Your task to perform on an android device: Go to sound settings Image 0: 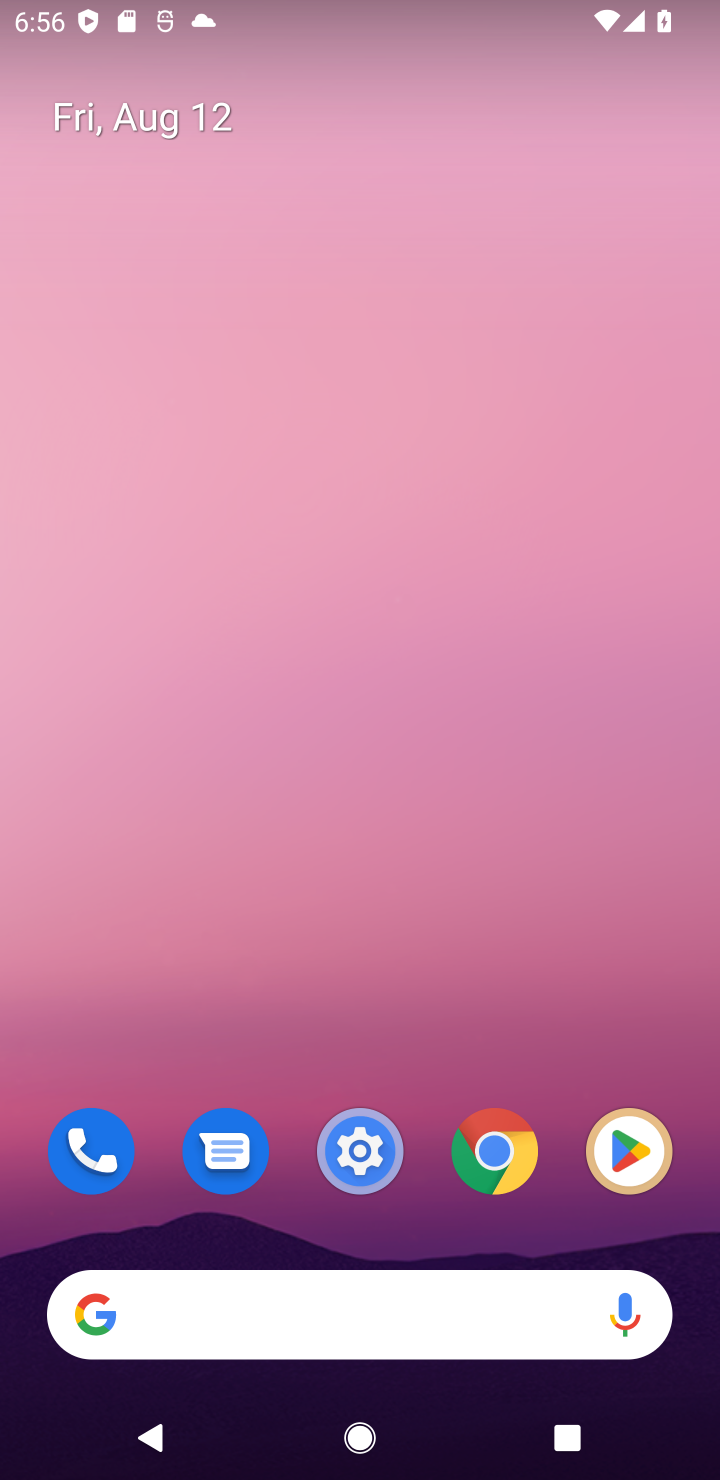
Step 0: drag from (399, 826) to (347, 6)
Your task to perform on an android device: Go to sound settings Image 1: 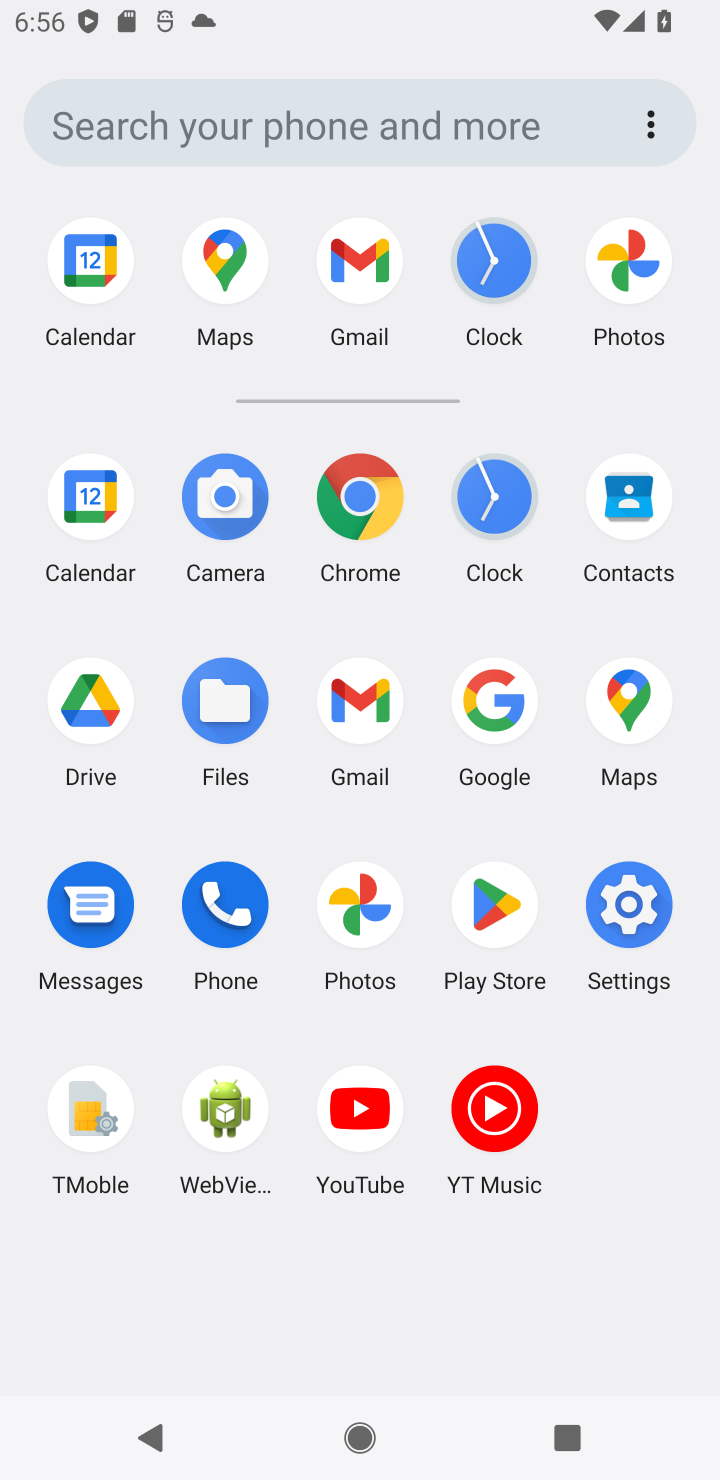
Step 1: click (626, 913)
Your task to perform on an android device: Go to sound settings Image 2: 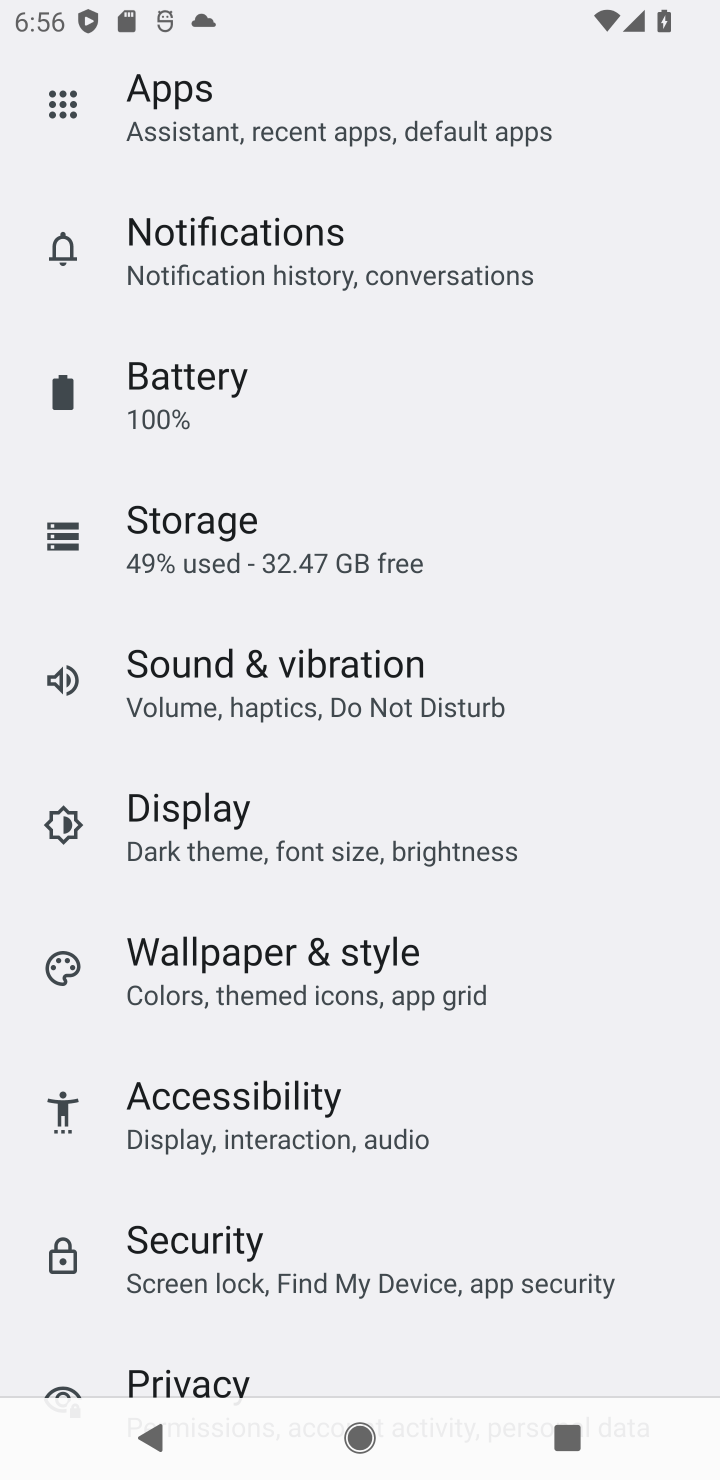
Step 2: click (316, 706)
Your task to perform on an android device: Go to sound settings Image 3: 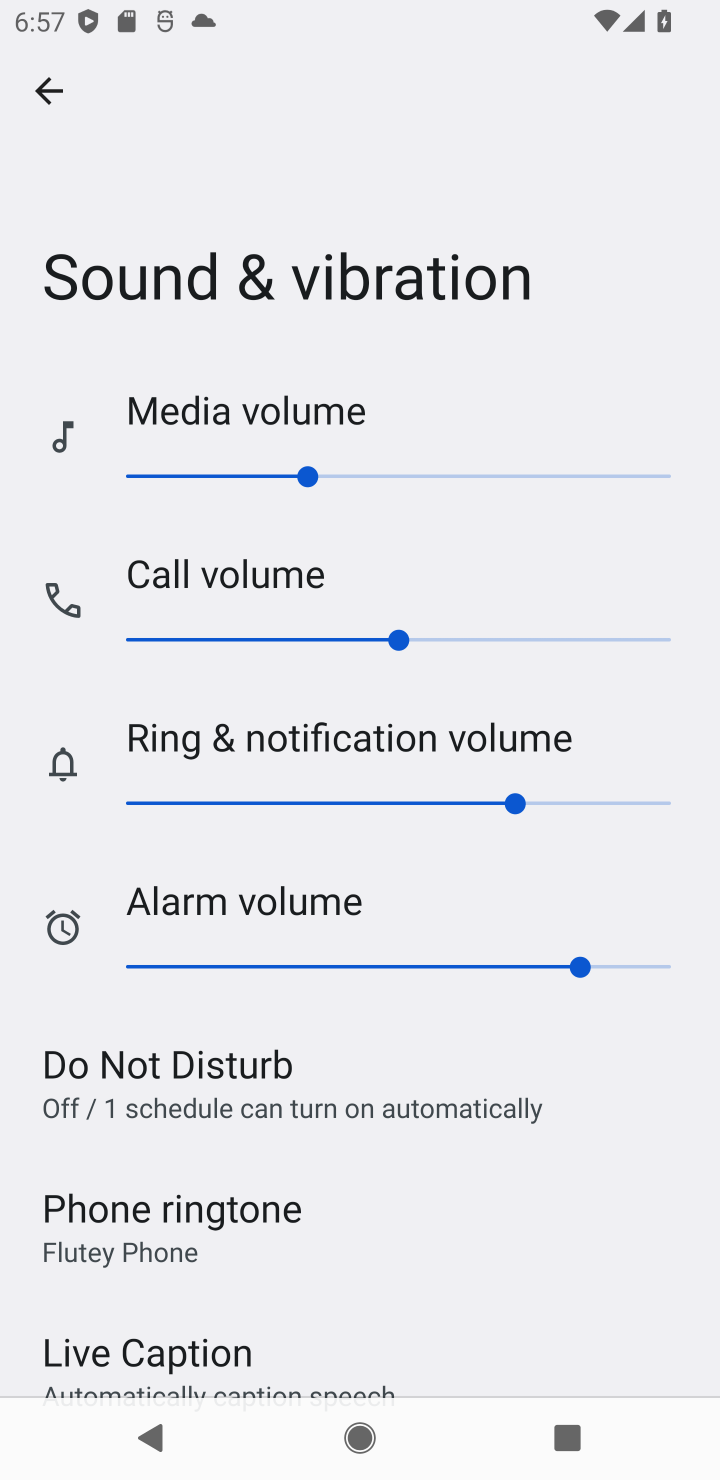
Step 3: task complete